Your task to perform on an android device: Go to internet settings Image 0: 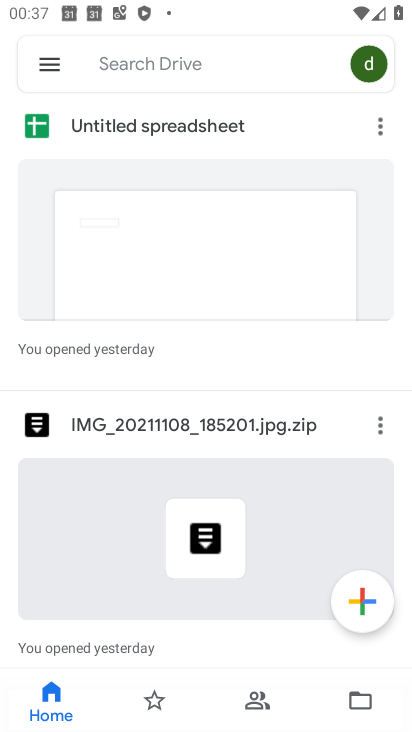
Step 0: press home button
Your task to perform on an android device: Go to internet settings Image 1: 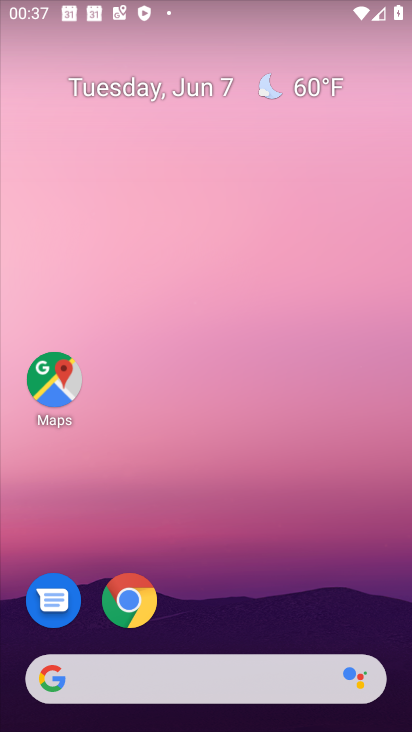
Step 1: drag from (259, 723) to (252, 44)
Your task to perform on an android device: Go to internet settings Image 2: 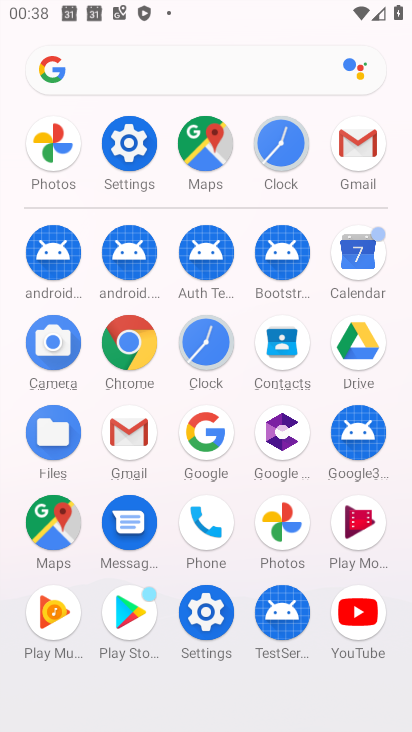
Step 2: click (135, 134)
Your task to perform on an android device: Go to internet settings Image 3: 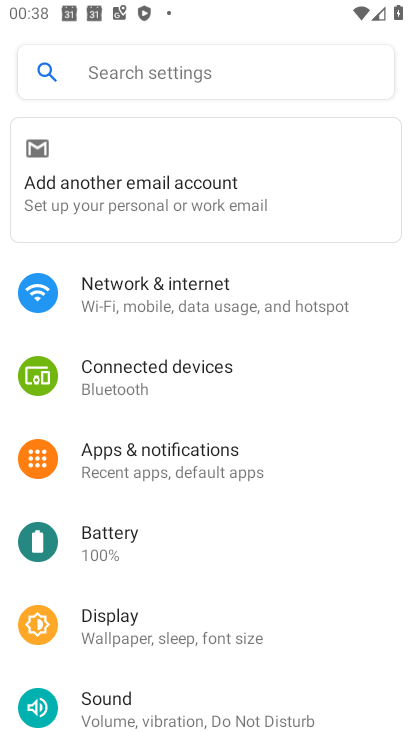
Step 3: click (142, 295)
Your task to perform on an android device: Go to internet settings Image 4: 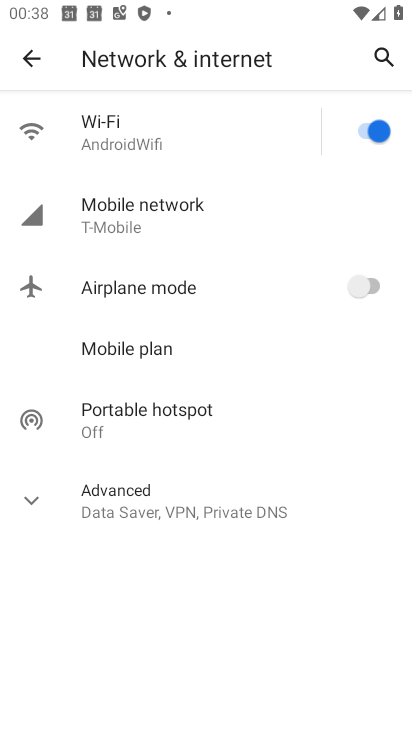
Step 4: task complete